Your task to perform on an android device: change timer sound Image 0: 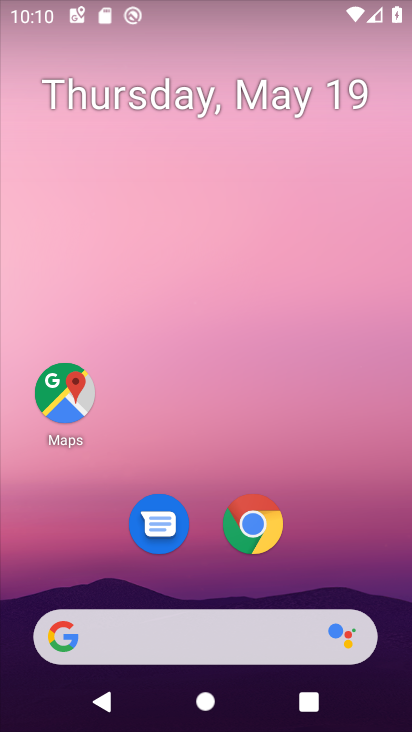
Step 0: drag from (331, 484) to (313, 44)
Your task to perform on an android device: change timer sound Image 1: 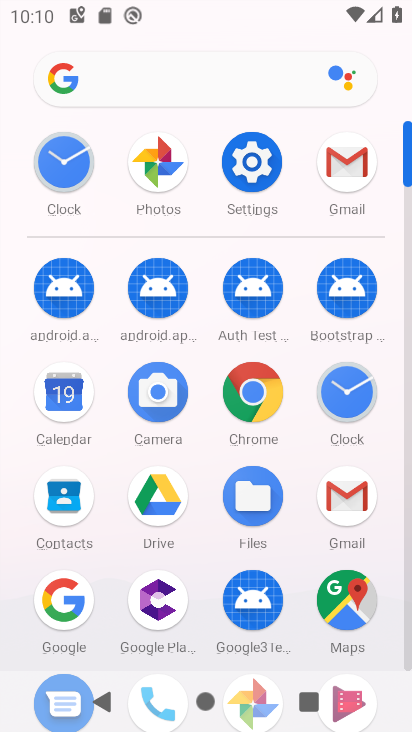
Step 1: click (347, 397)
Your task to perform on an android device: change timer sound Image 2: 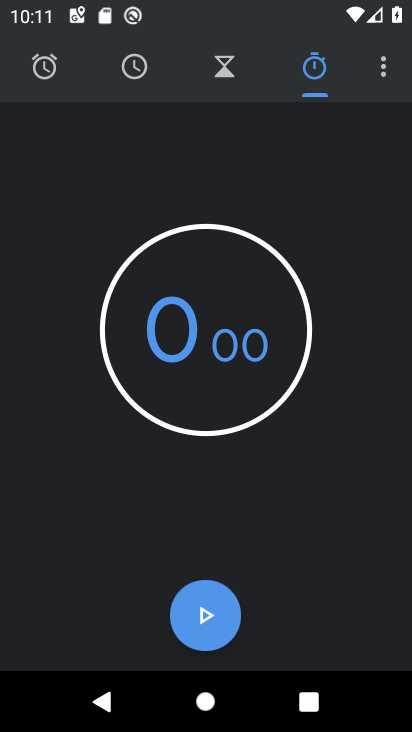
Step 2: click (383, 74)
Your task to perform on an android device: change timer sound Image 3: 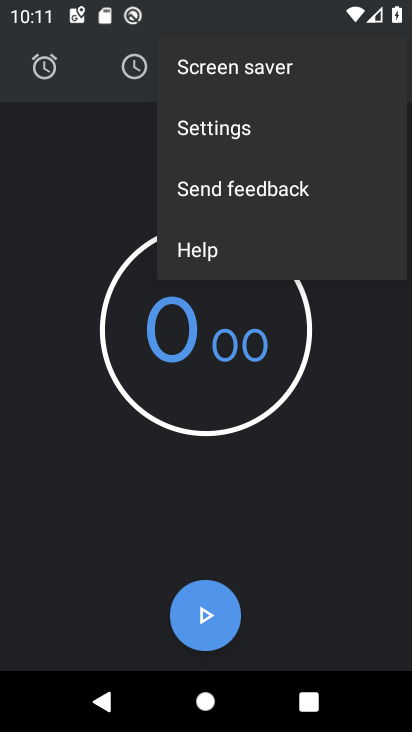
Step 3: click (276, 128)
Your task to perform on an android device: change timer sound Image 4: 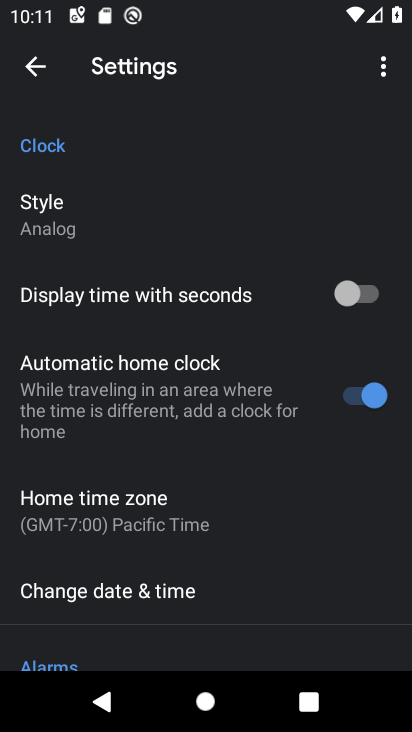
Step 4: drag from (218, 466) to (244, 132)
Your task to perform on an android device: change timer sound Image 5: 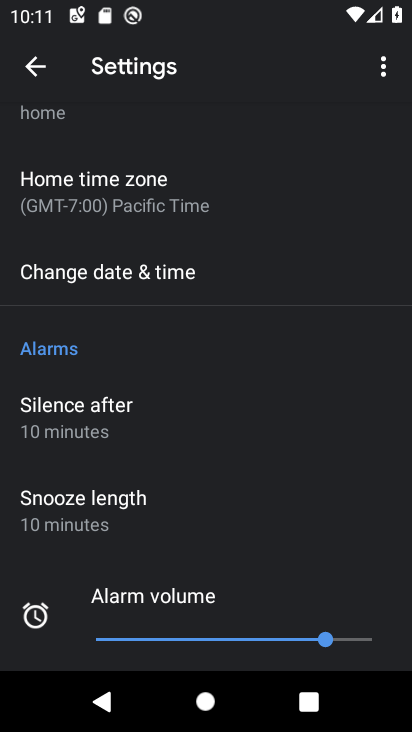
Step 5: drag from (204, 403) to (231, 96)
Your task to perform on an android device: change timer sound Image 6: 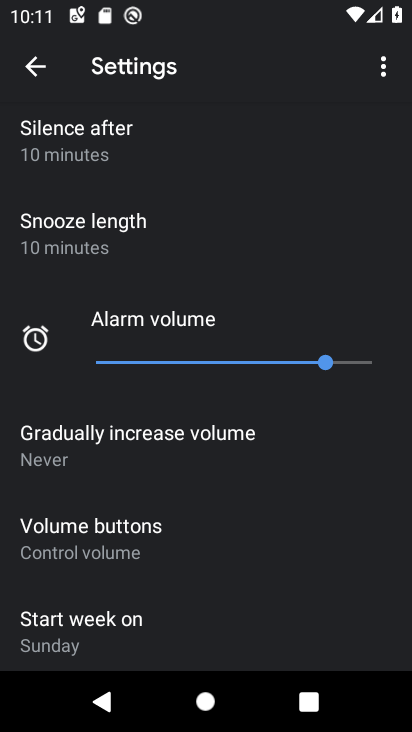
Step 6: drag from (204, 512) to (256, 55)
Your task to perform on an android device: change timer sound Image 7: 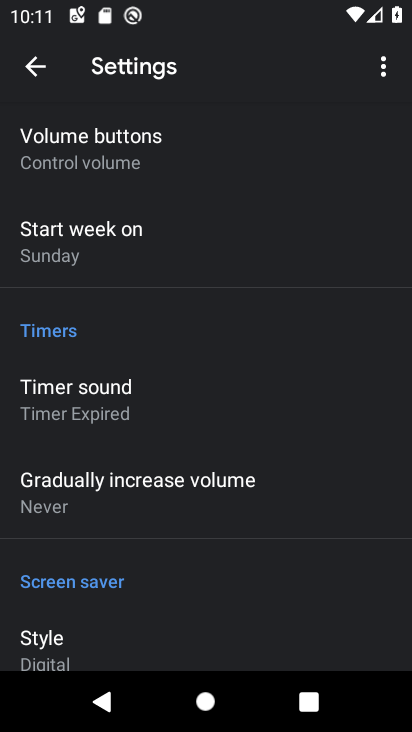
Step 7: click (133, 403)
Your task to perform on an android device: change timer sound Image 8: 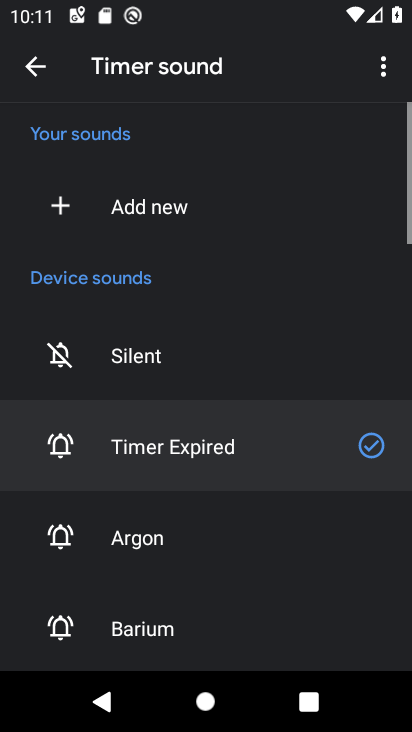
Step 8: click (145, 537)
Your task to perform on an android device: change timer sound Image 9: 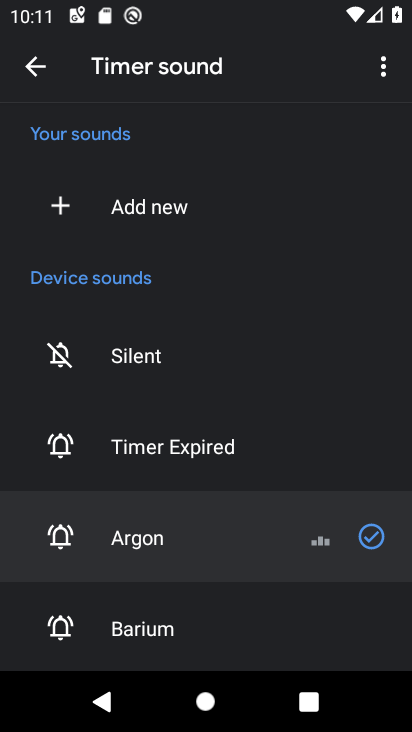
Step 9: task complete